Your task to perform on an android device: empty trash in google photos Image 0: 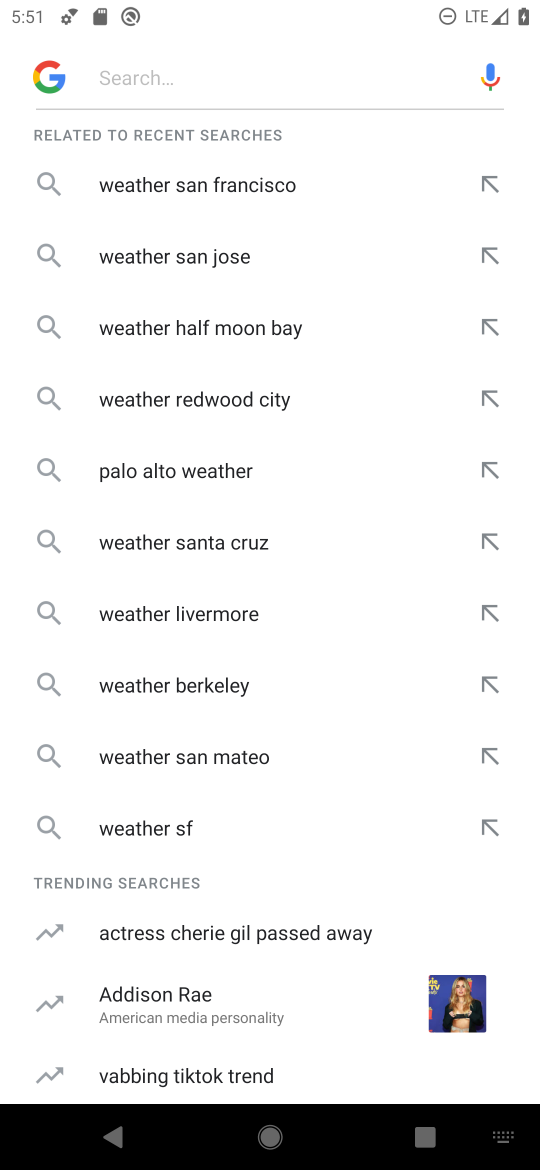
Step 0: press home button
Your task to perform on an android device: empty trash in google photos Image 1: 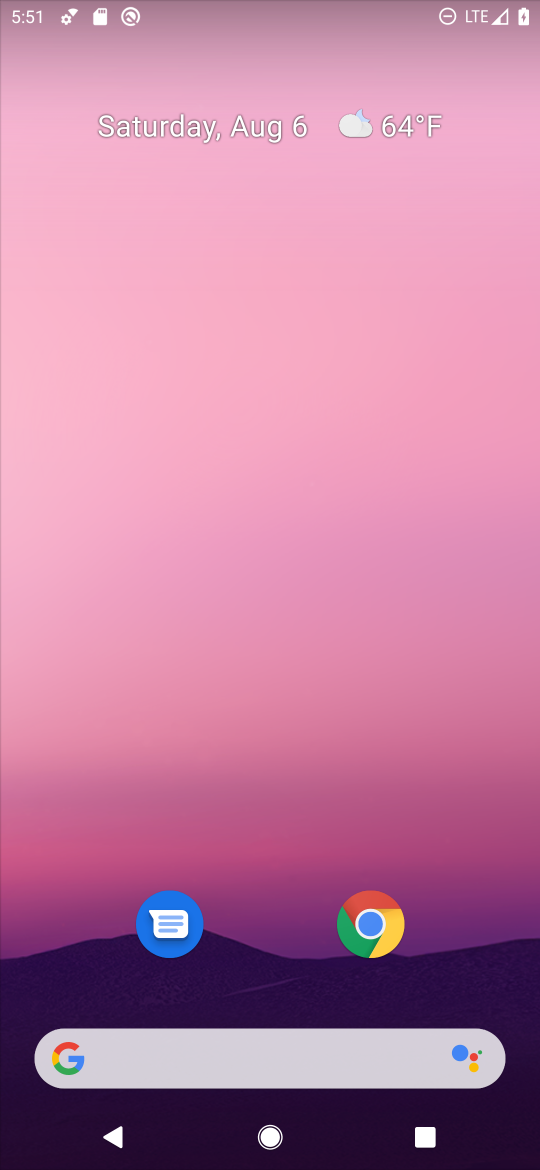
Step 1: drag from (266, 823) to (260, 92)
Your task to perform on an android device: empty trash in google photos Image 2: 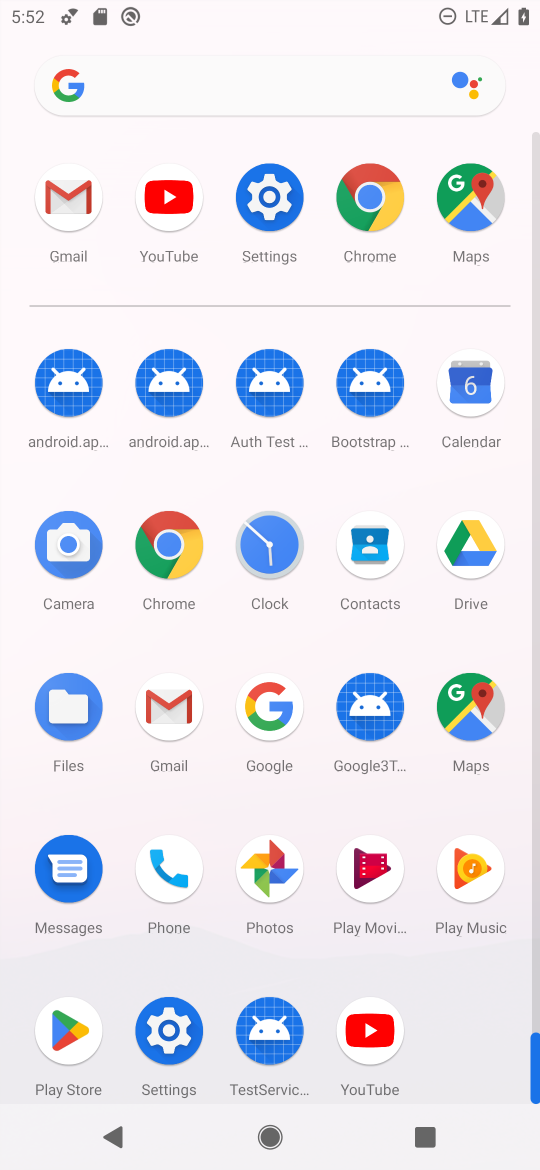
Step 2: click (271, 865)
Your task to perform on an android device: empty trash in google photos Image 3: 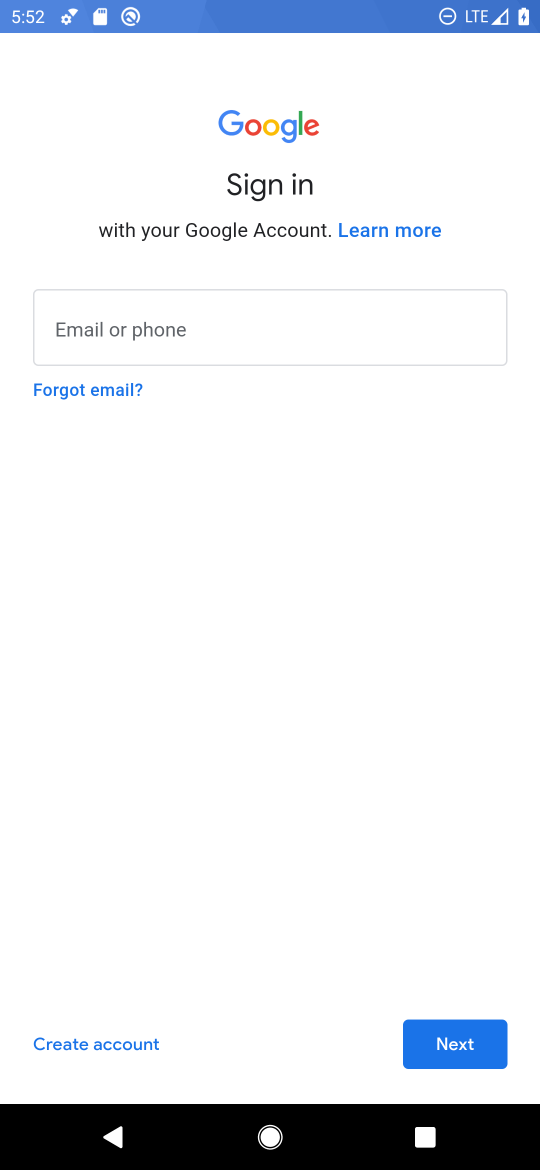
Step 3: task complete